Your task to perform on an android device: Open the calendar app, open the side menu, and click the "Day" option Image 0: 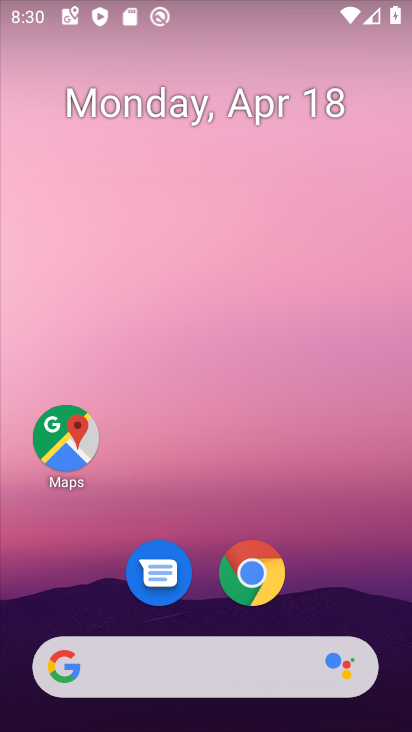
Step 0: drag from (331, 603) to (365, 182)
Your task to perform on an android device: Open the calendar app, open the side menu, and click the "Day" option Image 1: 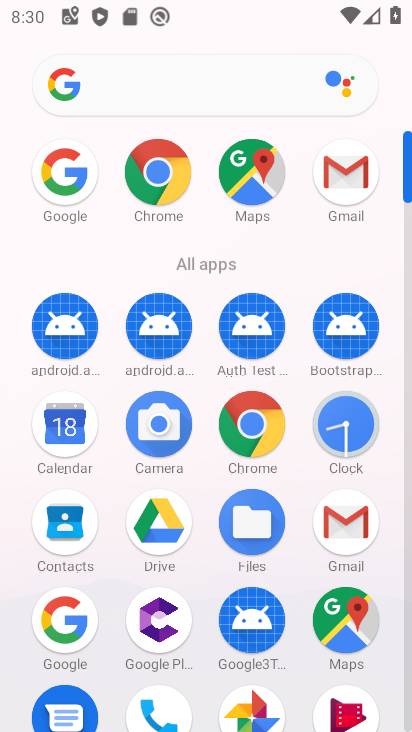
Step 1: click (80, 436)
Your task to perform on an android device: Open the calendar app, open the side menu, and click the "Day" option Image 2: 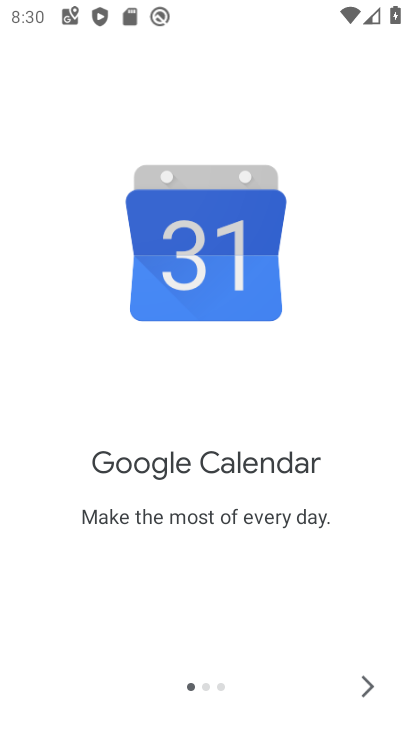
Step 2: click (368, 694)
Your task to perform on an android device: Open the calendar app, open the side menu, and click the "Day" option Image 3: 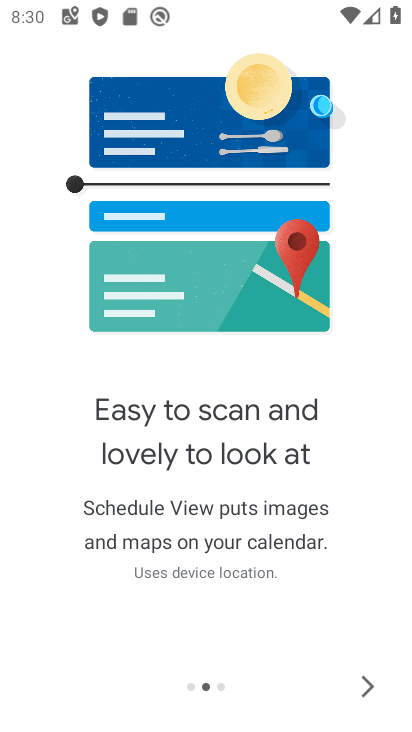
Step 3: click (368, 692)
Your task to perform on an android device: Open the calendar app, open the side menu, and click the "Day" option Image 4: 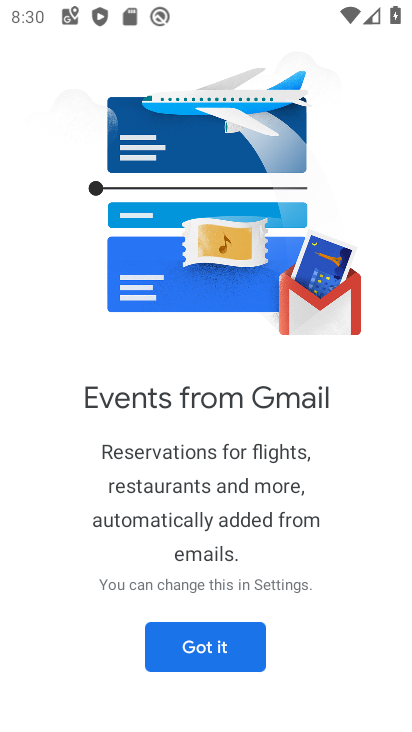
Step 4: click (197, 656)
Your task to perform on an android device: Open the calendar app, open the side menu, and click the "Day" option Image 5: 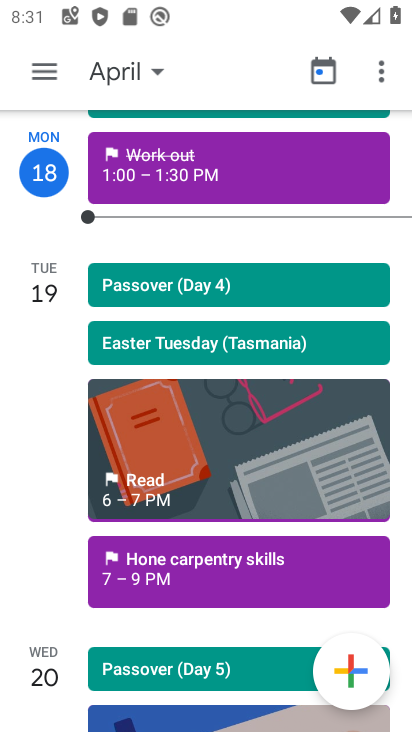
Step 5: click (49, 74)
Your task to perform on an android device: Open the calendar app, open the side menu, and click the "Day" option Image 6: 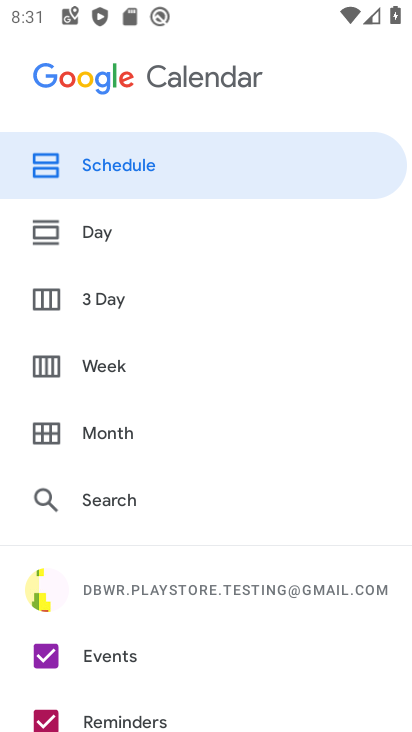
Step 6: click (124, 227)
Your task to perform on an android device: Open the calendar app, open the side menu, and click the "Day" option Image 7: 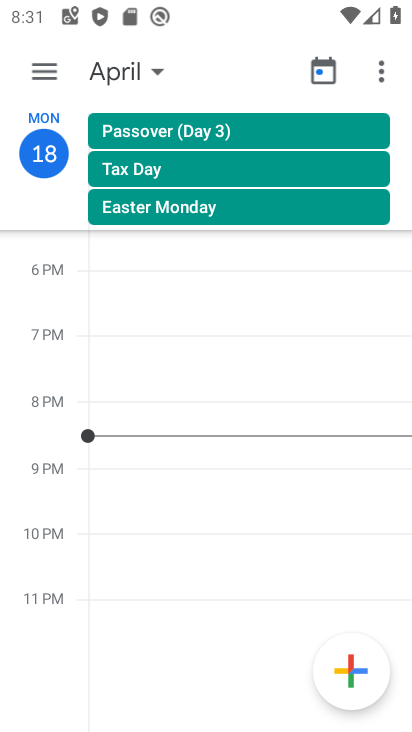
Step 7: task complete